Your task to perform on an android device: Is it going to rain tomorrow? Image 0: 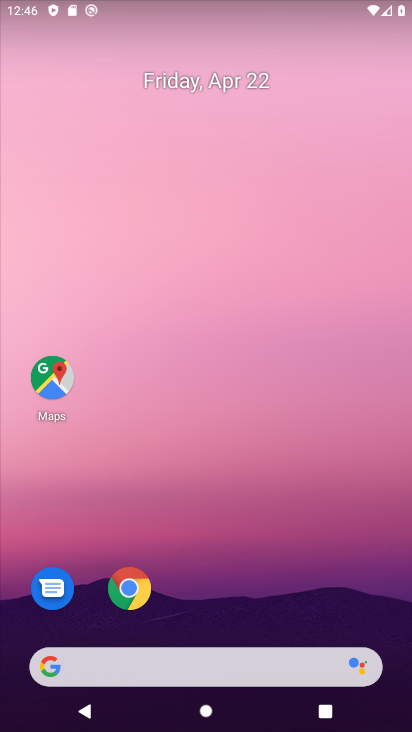
Step 0: click (247, 285)
Your task to perform on an android device: Is it going to rain tomorrow? Image 1: 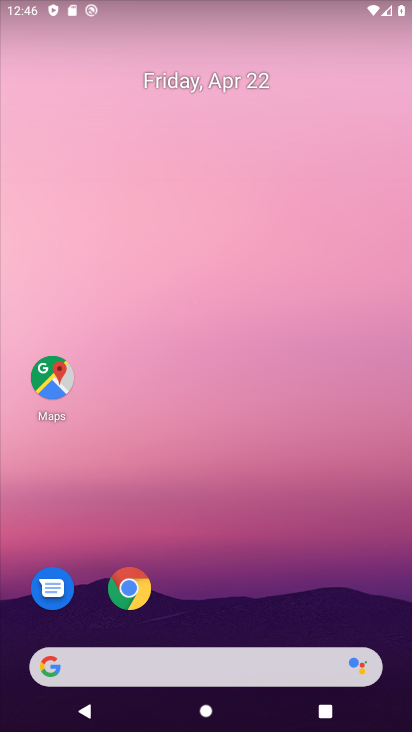
Step 1: drag from (282, 689) to (236, 266)
Your task to perform on an android device: Is it going to rain tomorrow? Image 2: 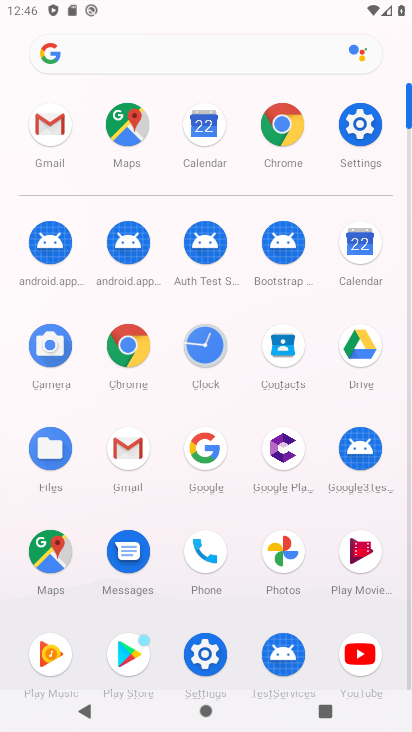
Step 2: click (122, 62)
Your task to perform on an android device: Is it going to rain tomorrow? Image 3: 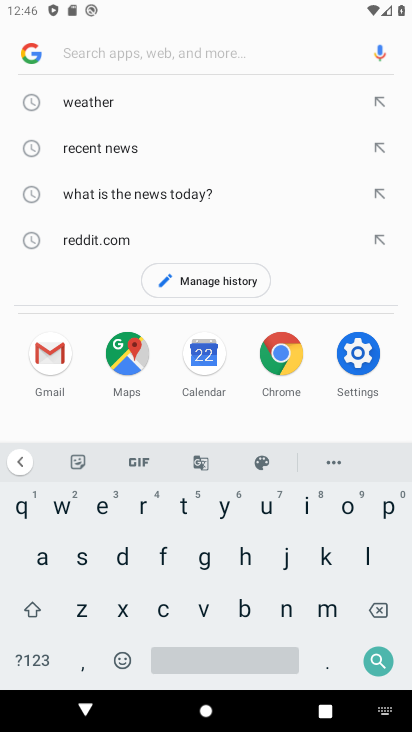
Step 3: click (100, 101)
Your task to perform on an android device: Is it going to rain tomorrow? Image 4: 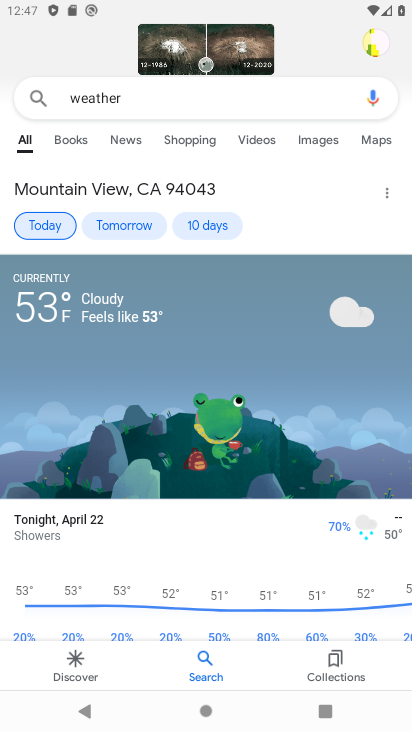
Step 4: click (117, 223)
Your task to perform on an android device: Is it going to rain tomorrow? Image 5: 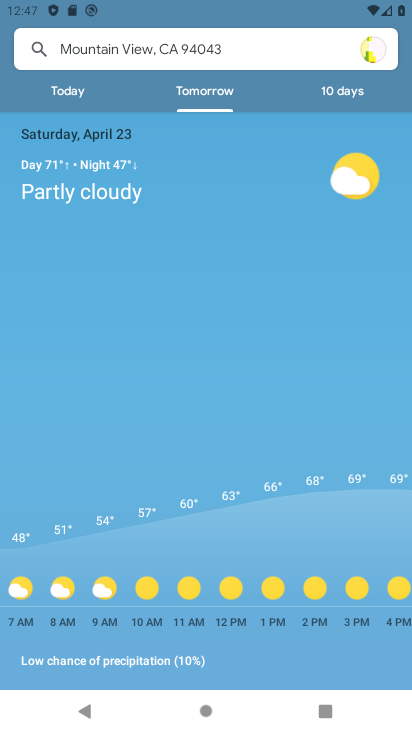
Step 5: task complete